Your task to perform on an android device: turn on the 12-hour format for clock Image 0: 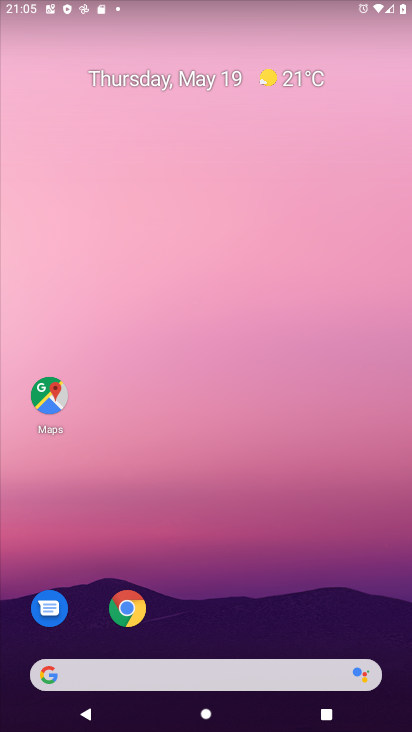
Step 0: drag from (281, 599) to (216, 99)
Your task to perform on an android device: turn on the 12-hour format for clock Image 1: 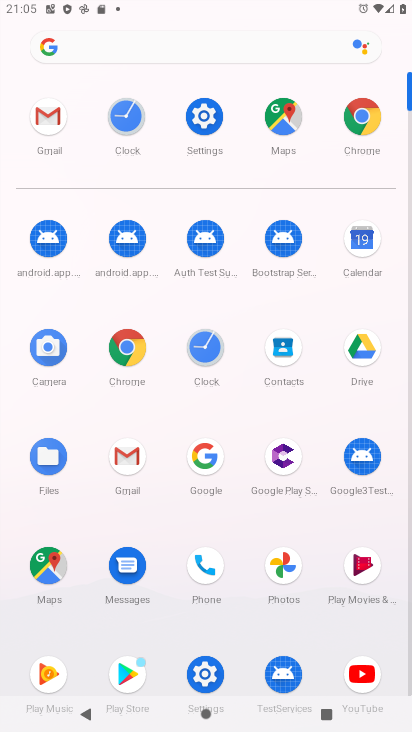
Step 1: click (130, 112)
Your task to perform on an android device: turn on the 12-hour format for clock Image 2: 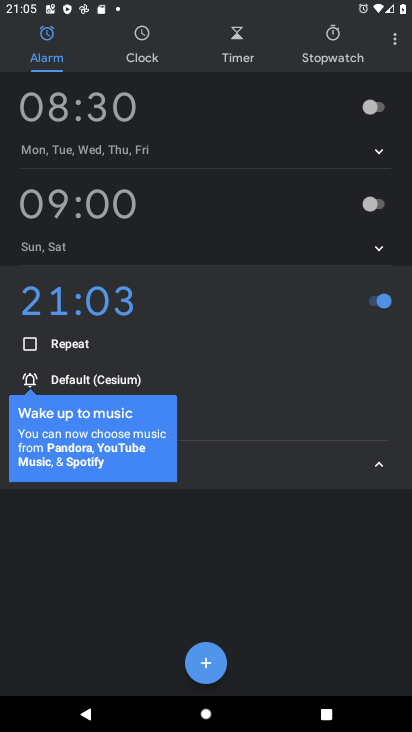
Step 2: click (397, 36)
Your task to perform on an android device: turn on the 12-hour format for clock Image 3: 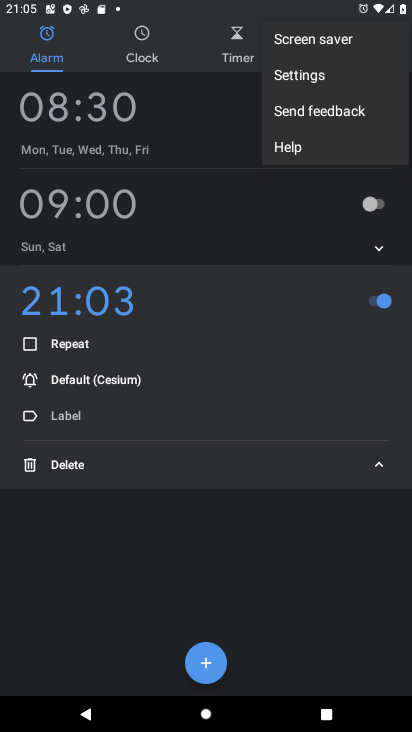
Step 3: click (299, 77)
Your task to perform on an android device: turn on the 12-hour format for clock Image 4: 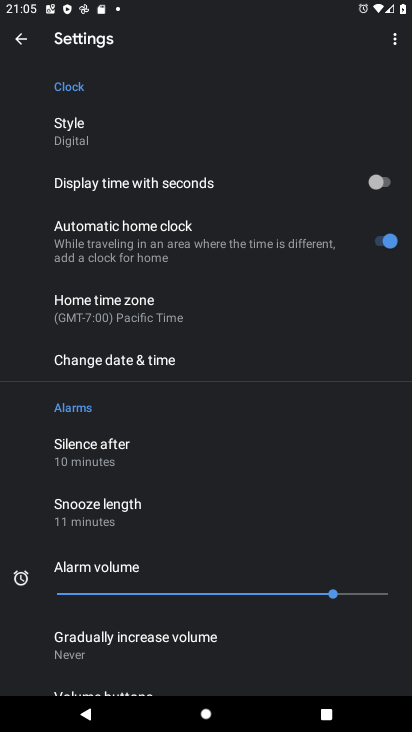
Step 4: drag from (223, 482) to (210, 336)
Your task to perform on an android device: turn on the 12-hour format for clock Image 5: 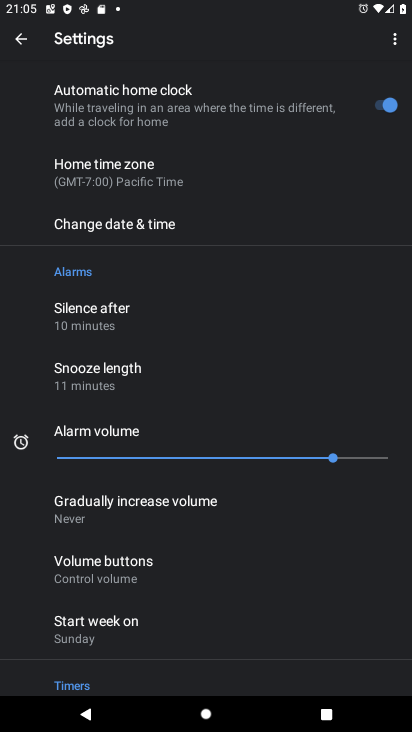
Step 5: drag from (203, 598) to (190, 385)
Your task to perform on an android device: turn on the 12-hour format for clock Image 6: 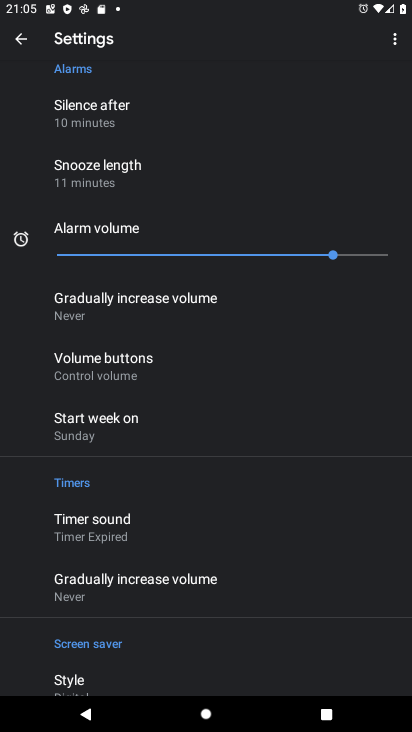
Step 6: drag from (185, 461) to (177, 275)
Your task to perform on an android device: turn on the 12-hour format for clock Image 7: 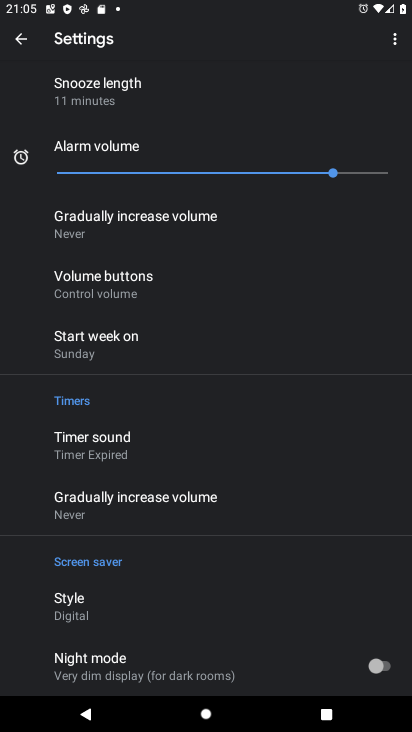
Step 7: drag from (185, 74) to (200, 359)
Your task to perform on an android device: turn on the 12-hour format for clock Image 8: 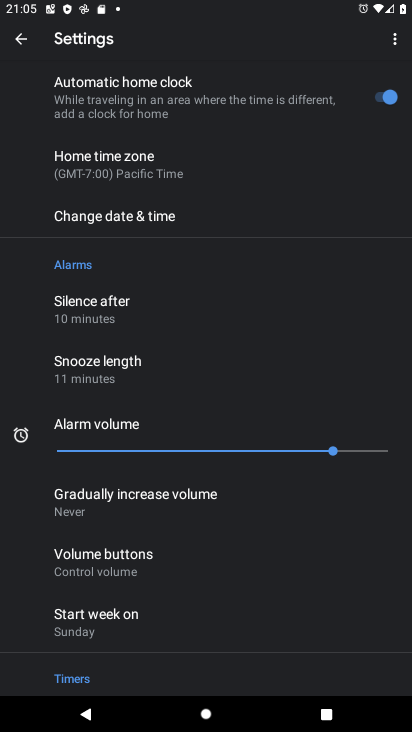
Step 8: click (114, 212)
Your task to perform on an android device: turn on the 12-hour format for clock Image 9: 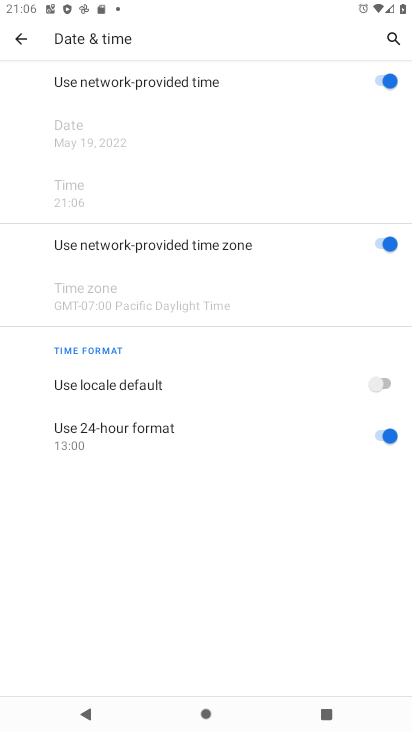
Step 9: click (372, 376)
Your task to perform on an android device: turn on the 12-hour format for clock Image 10: 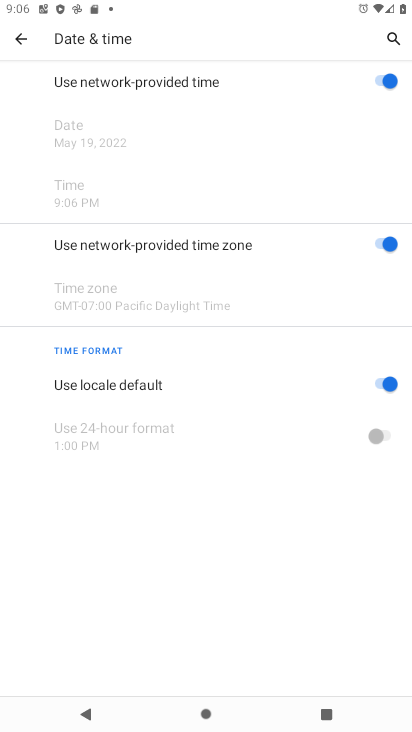
Step 10: task complete